Your task to perform on an android device: Open Maps and search for coffee Image 0: 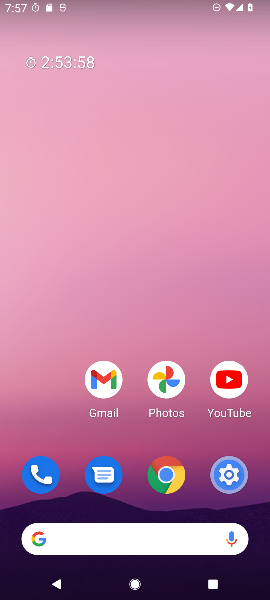
Step 0: press home button
Your task to perform on an android device: Open Maps and search for coffee Image 1: 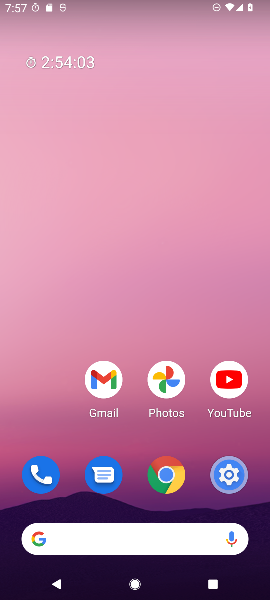
Step 1: drag from (52, 426) to (49, 197)
Your task to perform on an android device: Open Maps and search for coffee Image 2: 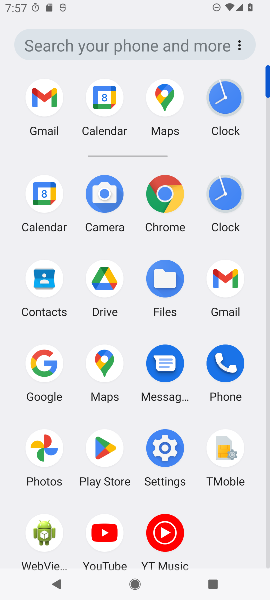
Step 2: click (102, 367)
Your task to perform on an android device: Open Maps and search for coffee Image 3: 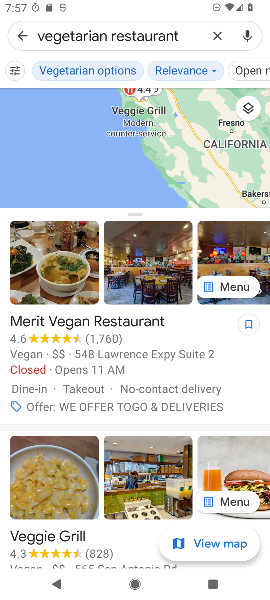
Step 3: click (217, 34)
Your task to perform on an android device: Open Maps and search for coffee Image 4: 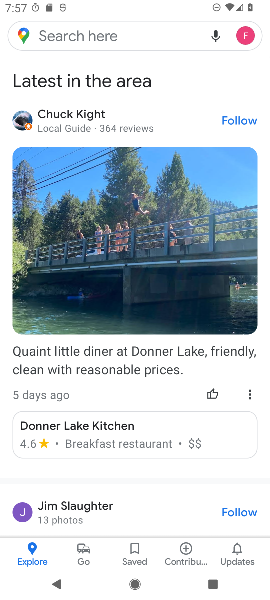
Step 4: click (153, 30)
Your task to perform on an android device: Open Maps and search for coffee Image 5: 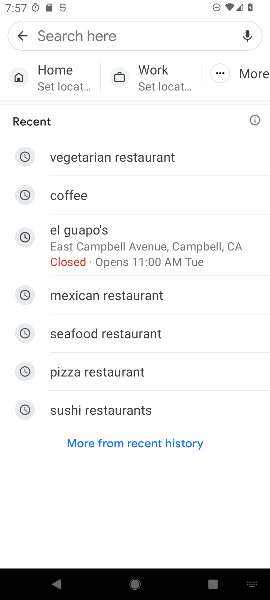
Step 5: type "coffee"
Your task to perform on an android device: Open Maps and search for coffee Image 6: 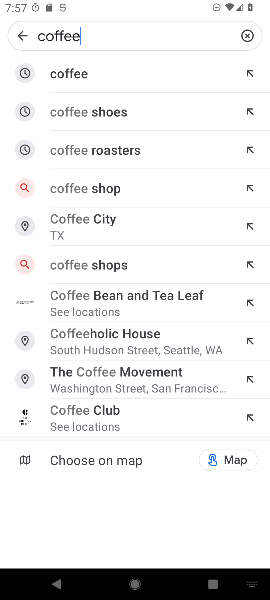
Step 6: click (140, 73)
Your task to perform on an android device: Open Maps and search for coffee Image 7: 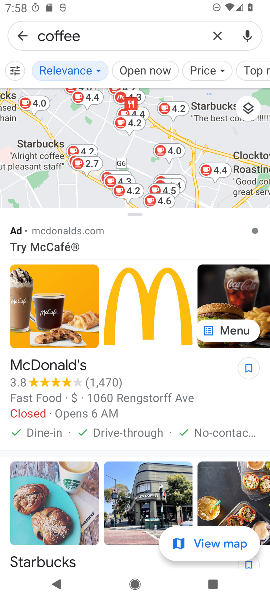
Step 7: task complete